Your task to perform on an android device: Play the last video I watched on Youtube Image 0: 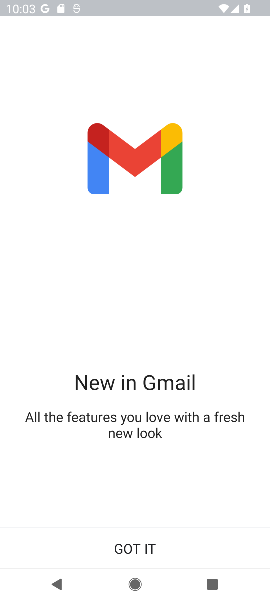
Step 0: drag from (210, 532) to (178, 254)
Your task to perform on an android device: Play the last video I watched on Youtube Image 1: 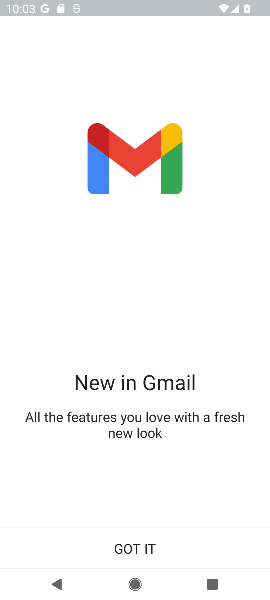
Step 1: press back button
Your task to perform on an android device: Play the last video I watched on Youtube Image 2: 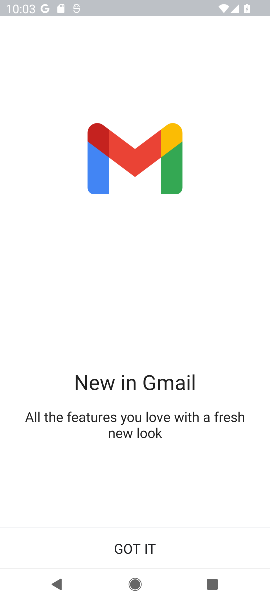
Step 2: press back button
Your task to perform on an android device: Play the last video I watched on Youtube Image 3: 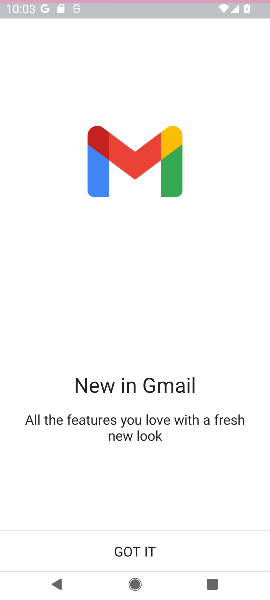
Step 3: press back button
Your task to perform on an android device: Play the last video I watched on Youtube Image 4: 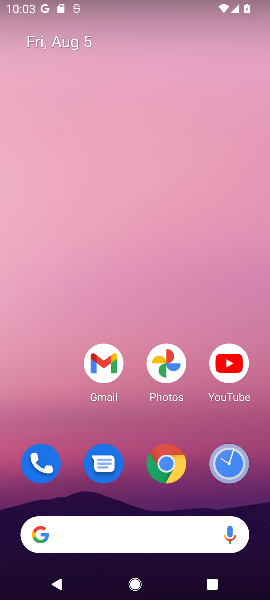
Step 4: press back button
Your task to perform on an android device: Play the last video I watched on Youtube Image 5: 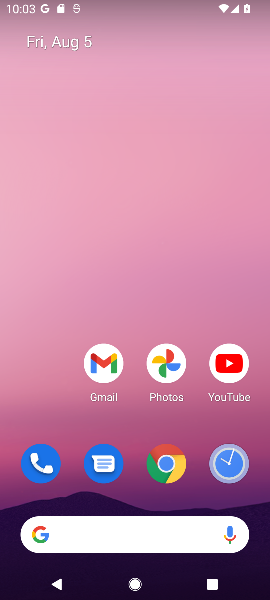
Step 5: press back button
Your task to perform on an android device: Play the last video I watched on Youtube Image 6: 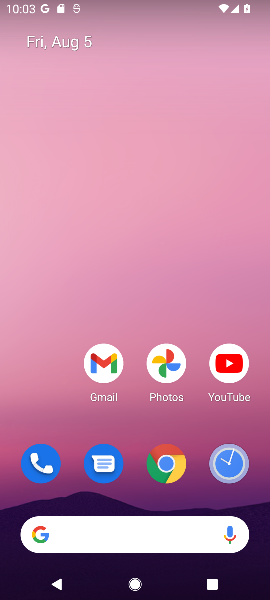
Step 6: press back button
Your task to perform on an android device: Play the last video I watched on Youtube Image 7: 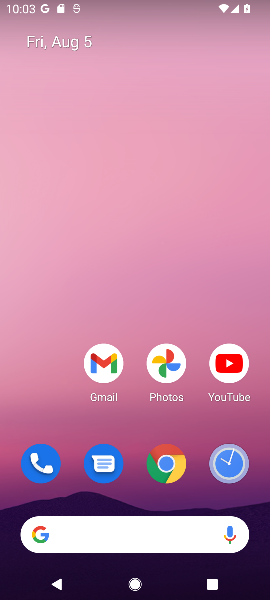
Step 7: press back button
Your task to perform on an android device: Play the last video I watched on Youtube Image 8: 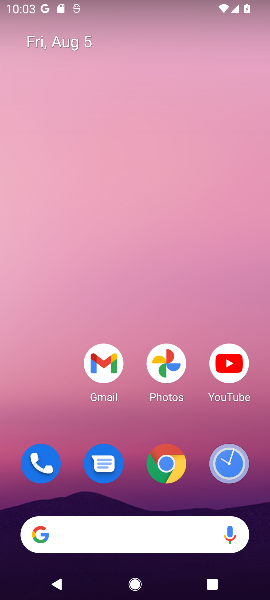
Step 8: press back button
Your task to perform on an android device: Play the last video I watched on Youtube Image 9: 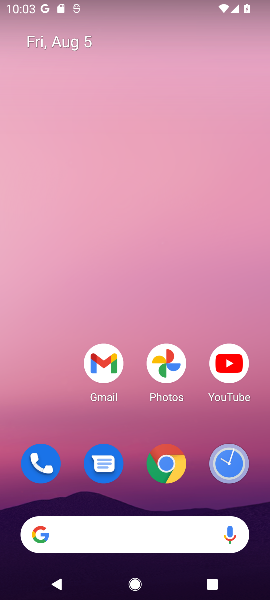
Step 9: press back button
Your task to perform on an android device: Play the last video I watched on Youtube Image 10: 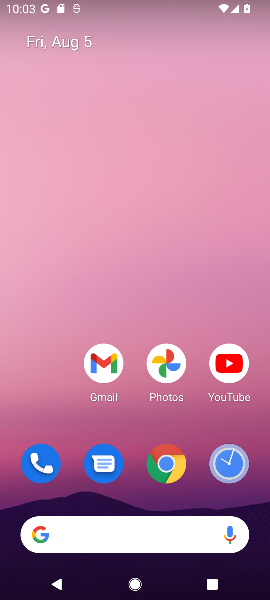
Step 10: press back button
Your task to perform on an android device: Play the last video I watched on Youtube Image 11: 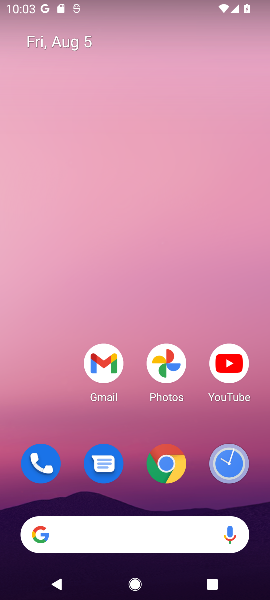
Step 11: press back button
Your task to perform on an android device: Play the last video I watched on Youtube Image 12: 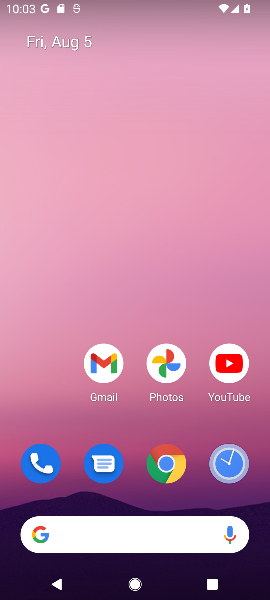
Step 12: press back button
Your task to perform on an android device: Play the last video I watched on Youtube Image 13: 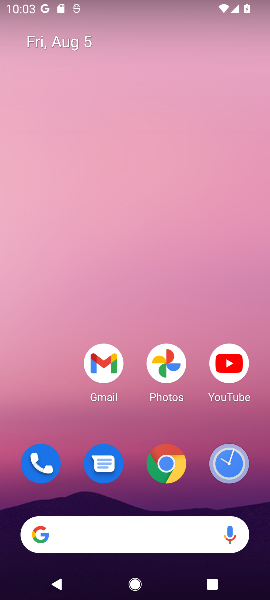
Step 13: press back button
Your task to perform on an android device: Play the last video I watched on Youtube Image 14: 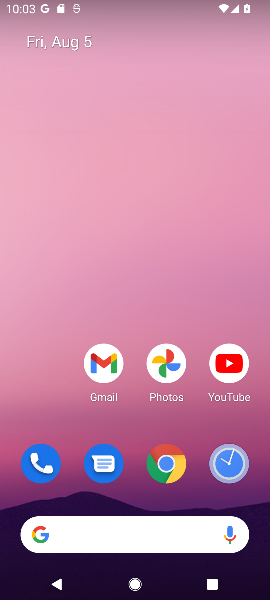
Step 14: press back button
Your task to perform on an android device: Play the last video I watched on Youtube Image 15: 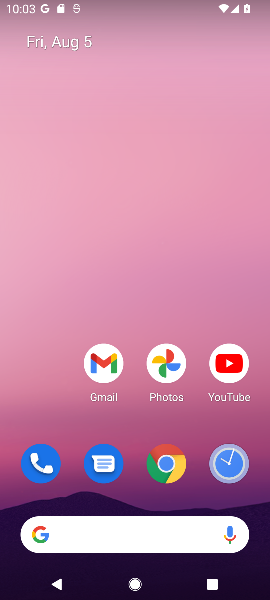
Step 15: drag from (89, 137) to (89, 104)
Your task to perform on an android device: Play the last video I watched on Youtube Image 16: 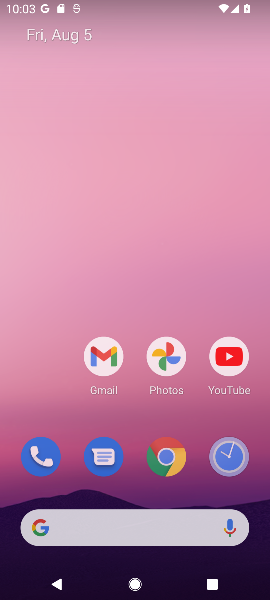
Step 16: drag from (179, 483) to (87, 37)
Your task to perform on an android device: Play the last video I watched on Youtube Image 17: 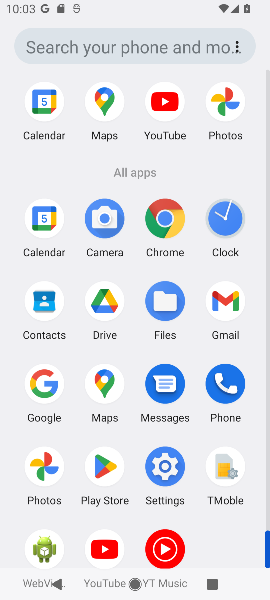
Step 17: drag from (115, 458) to (63, 97)
Your task to perform on an android device: Play the last video I watched on Youtube Image 18: 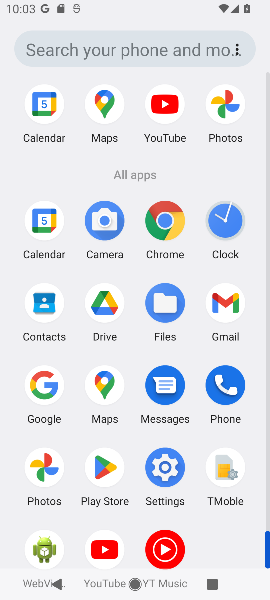
Step 18: drag from (133, 396) to (75, 133)
Your task to perform on an android device: Play the last video I watched on Youtube Image 19: 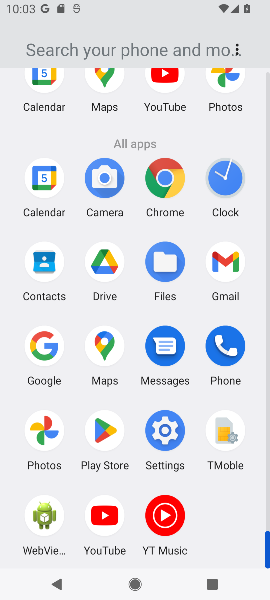
Step 19: click (65, 37)
Your task to perform on an android device: Play the last video I watched on Youtube Image 20: 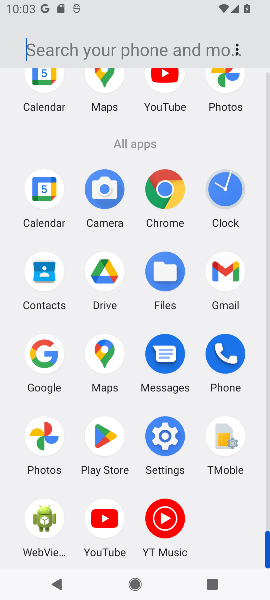
Step 20: click (104, 546)
Your task to perform on an android device: Play the last video I watched on Youtube Image 21: 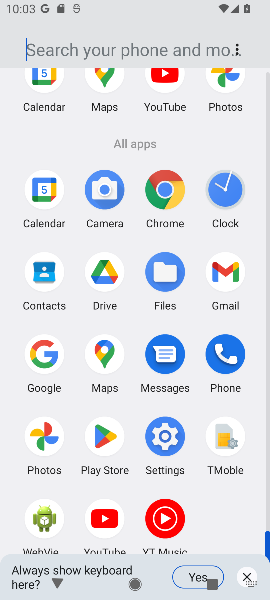
Step 21: click (103, 524)
Your task to perform on an android device: Play the last video I watched on Youtube Image 22: 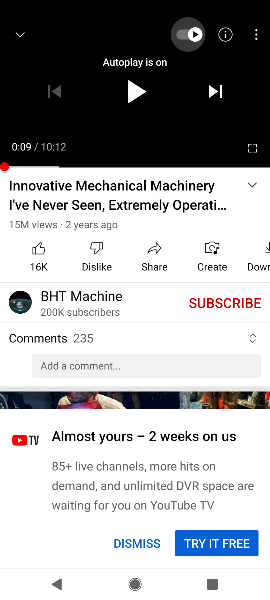
Step 22: click (101, 525)
Your task to perform on an android device: Play the last video I watched on Youtube Image 23: 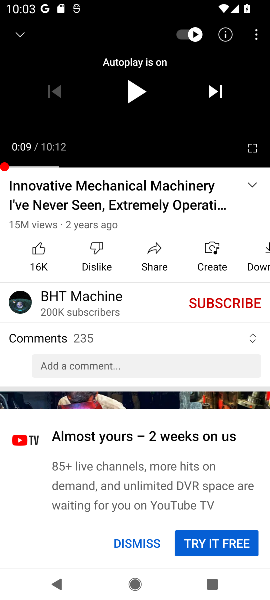
Step 23: click (102, 527)
Your task to perform on an android device: Play the last video I watched on Youtube Image 24: 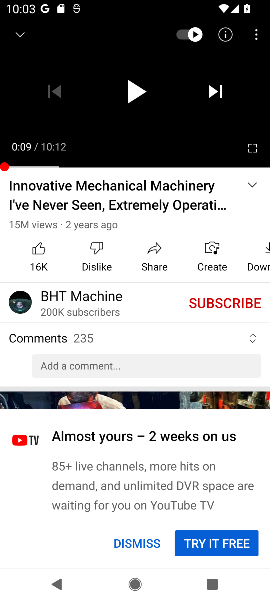
Step 24: task complete